Your task to perform on an android device: Open Chrome and go to settings Image 0: 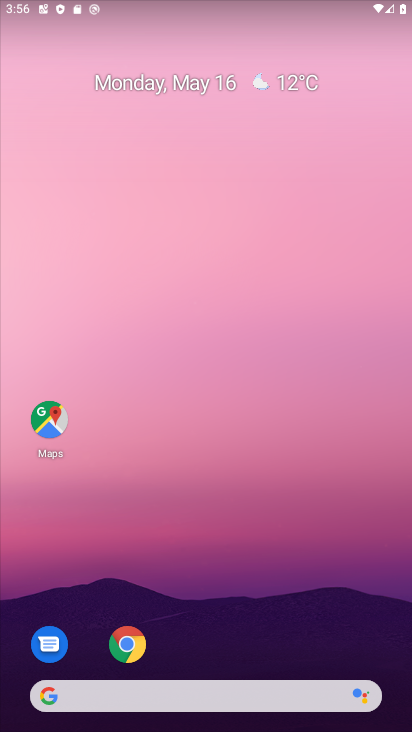
Step 0: click (129, 655)
Your task to perform on an android device: Open Chrome and go to settings Image 1: 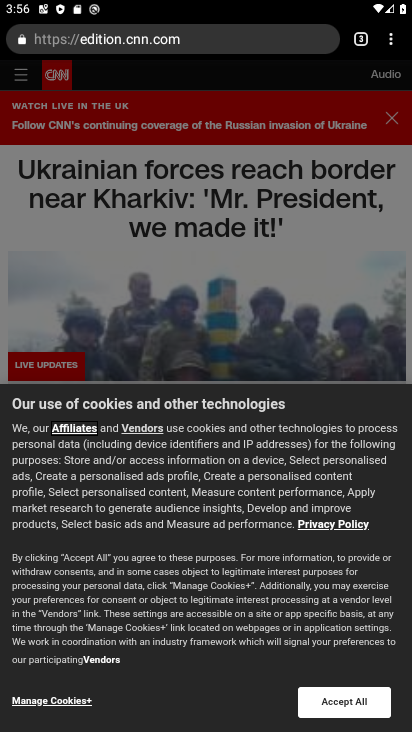
Step 1: task complete